Your task to perform on an android device: create a new album in the google photos Image 0: 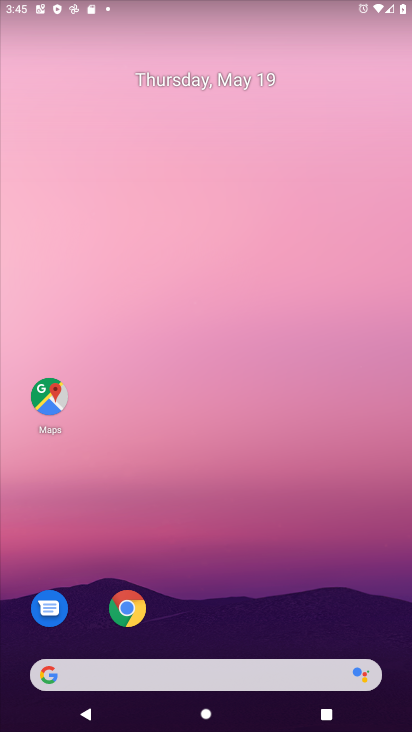
Step 0: click (323, 147)
Your task to perform on an android device: create a new album in the google photos Image 1: 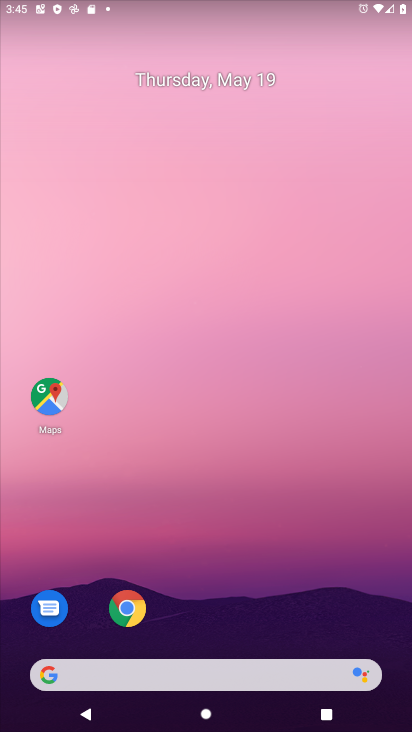
Step 1: click (247, 408)
Your task to perform on an android device: create a new album in the google photos Image 2: 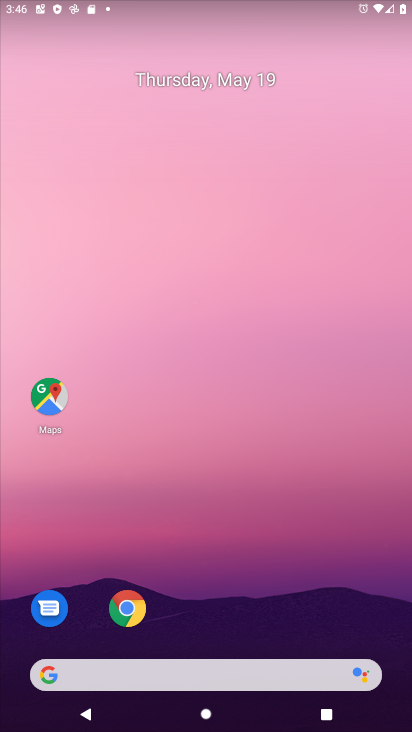
Step 2: click (274, 34)
Your task to perform on an android device: create a new album in the google photos Image 3: 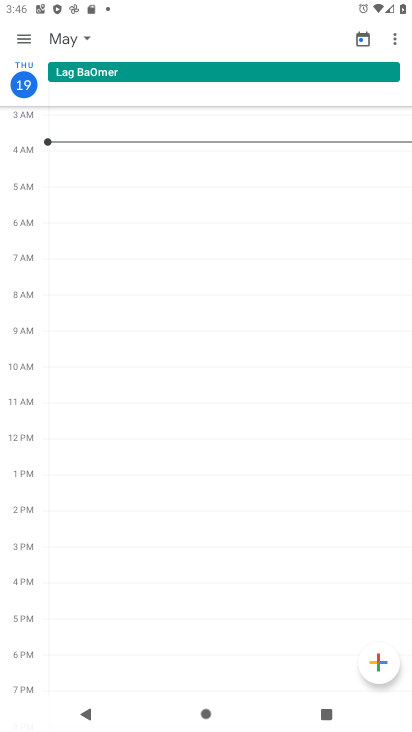
Step 3: press home button
Your task to perform on an android device: create a new album in the google photos Image 4: 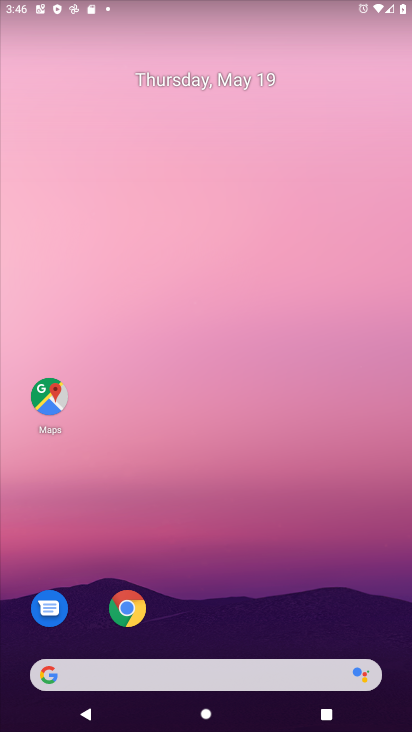
Step 4: click (319, 34)
Your task to perform on an android device: create a new album in the google photos Image 5: 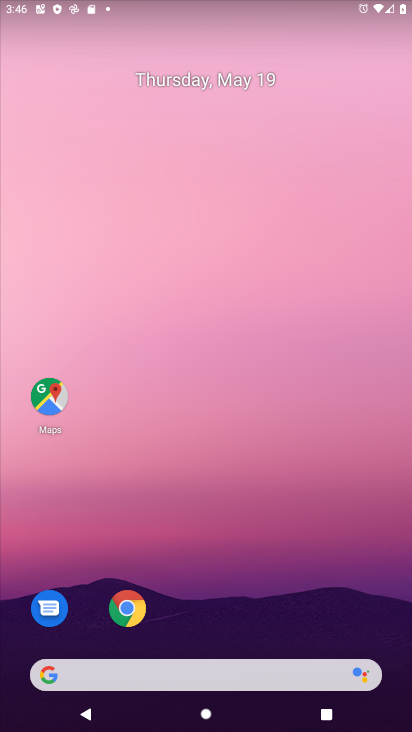
Step 5: click (239, 157)
Your task to perform on an android device: create a new album in the google photos Image 6: 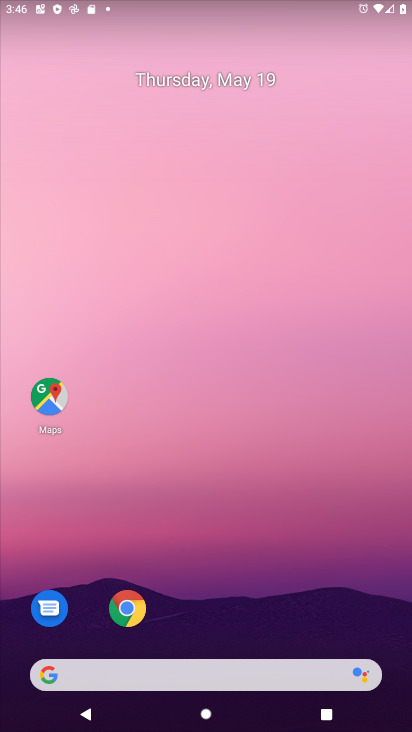
Step 6: click (202, 706)
Your task to perform on an android device: create a new album in the google photos Image 7: 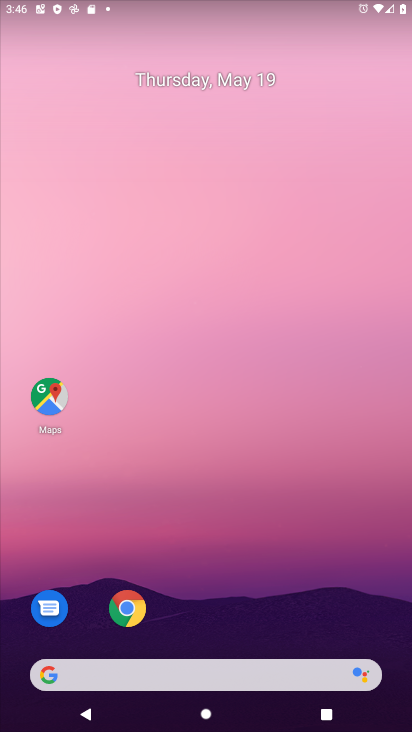
Step 7: click (202, 706)
Your task to perform on an android device: create a new album in the google photos Image 8: 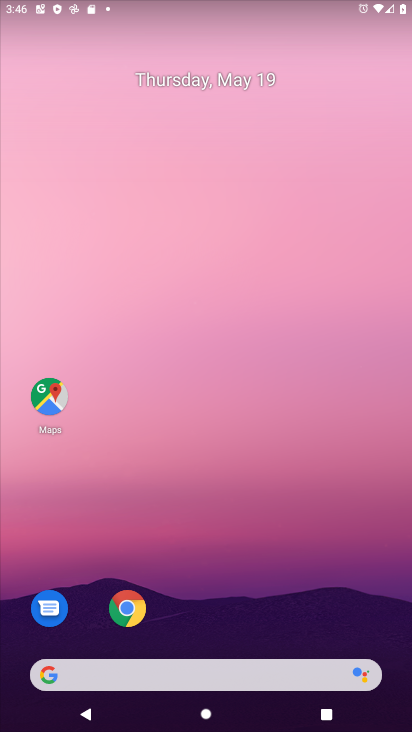
Step 8: drag from (218, 614) to (228, 85)
Your task to perform on an android device: create a new album in the google photos Image 9: 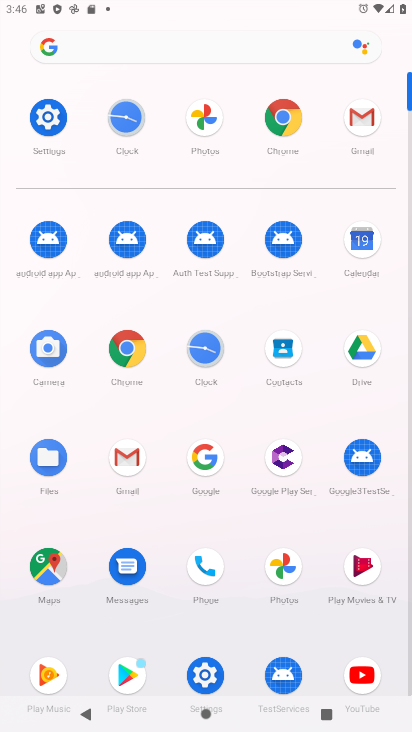
Step 9: click (210, 121)
Your task to perform on an android device: create a new album in the google photos Image 10: 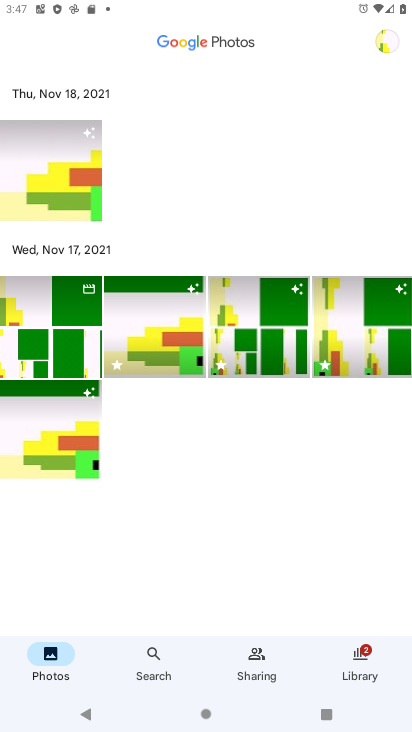
Step 10: click (341, 673)
Your task to perform on an android device: create a new album in the google photos Image 11: 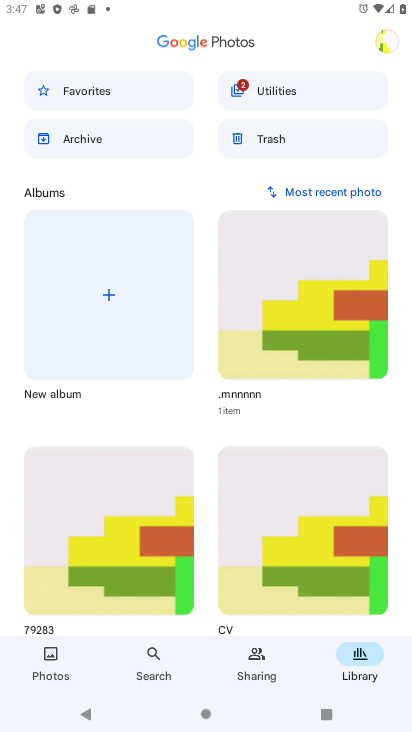
Step 11: click (77, 282)
Your task to perform on an android device: create a new album in the google photos Image 12: 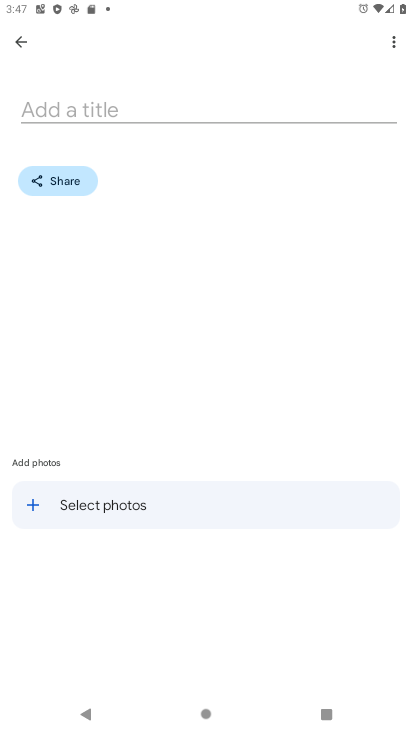
Step 12: click (149, 103)
Your task to perform on an android device: create a new album in the google photos Image 13: 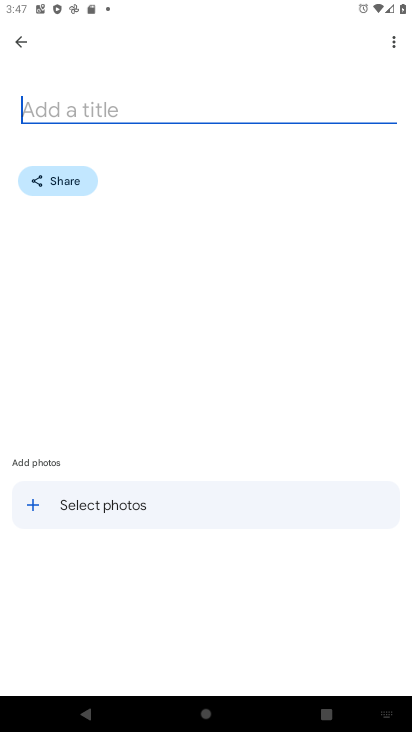
Step 13: type "fthfs"
Your task to perform on an android device: create a new album in the google photos Image 14: 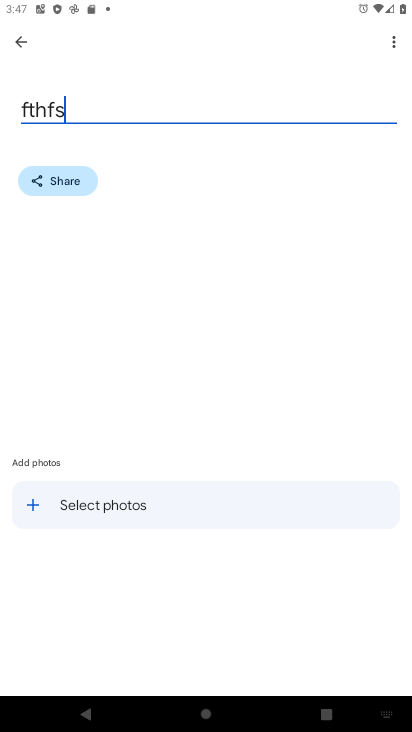
Step 14: click (170, 512)
Your task to perform on an android device: create a new album in the google photos Image 15: 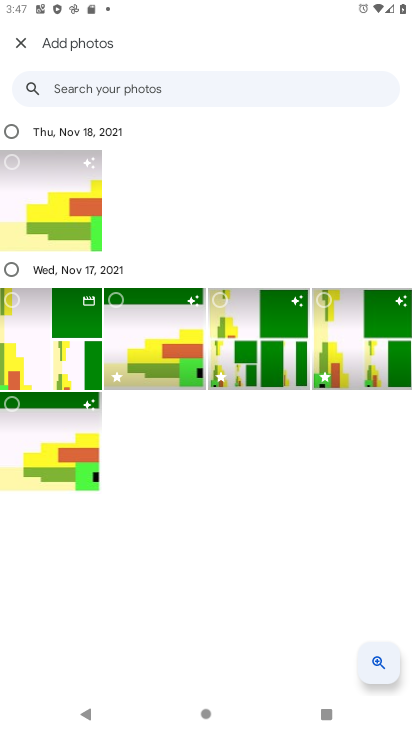
Step 15: click (119, 131)
Your task to perform on an android device: create a new album in the google photos Image 16: 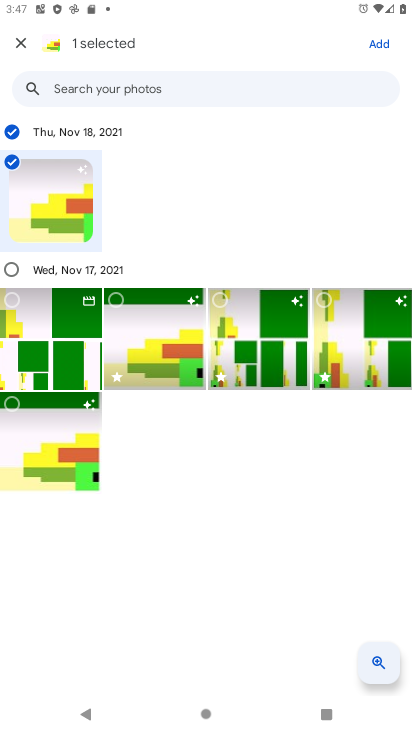
Step 16: click (41, 276)
Your task to perform on an android device: create a new album in the google photos Image 17: 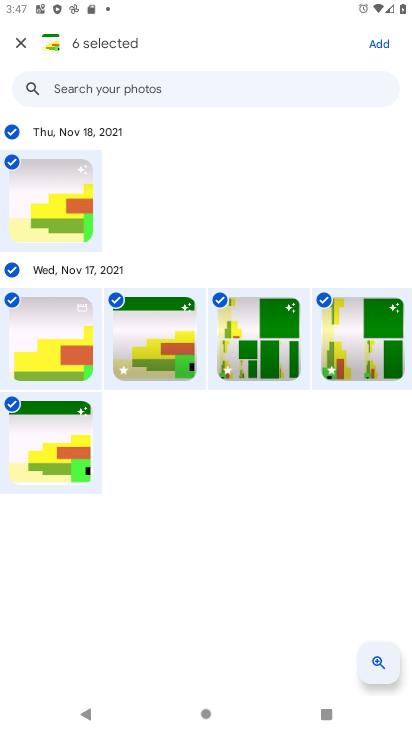
Step 17: click (385, 41)
Your task to perform on an android device: create a new album in the google photos Image 18: 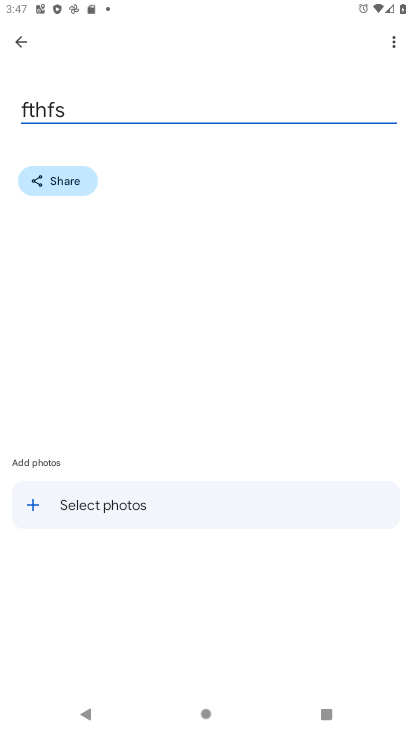
Step 18: task complete